Your task to perform on an android device: toggle notification dots Image 0: 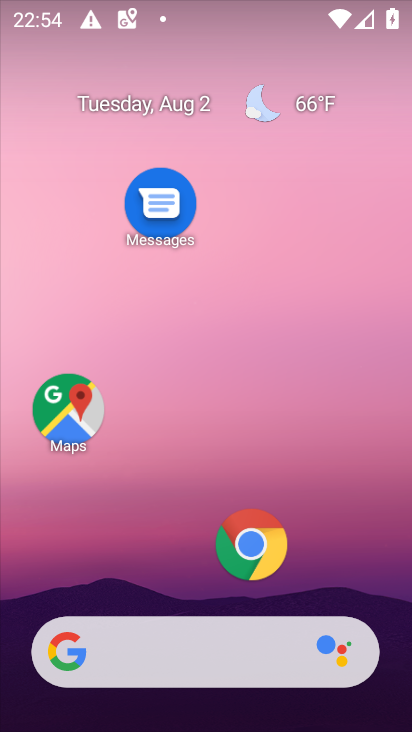
Step 0: drag from (192, 582) to (196, 251)
Your task to perform on an android device: toggle notification dots Image 1: 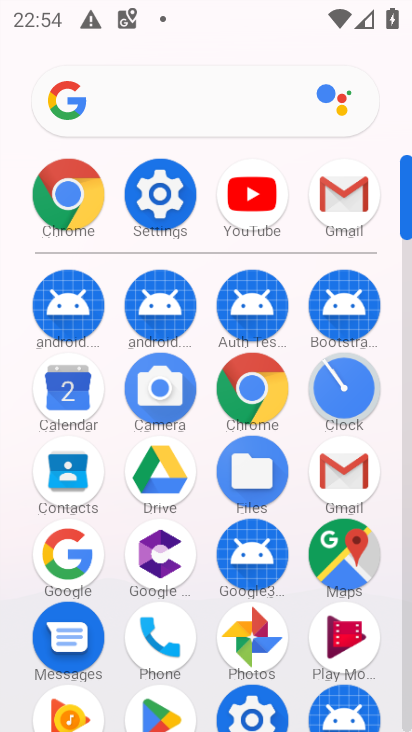
Step 1: click (163, 215)
Your task to perform on an android device: toggle notification dots Image 2: 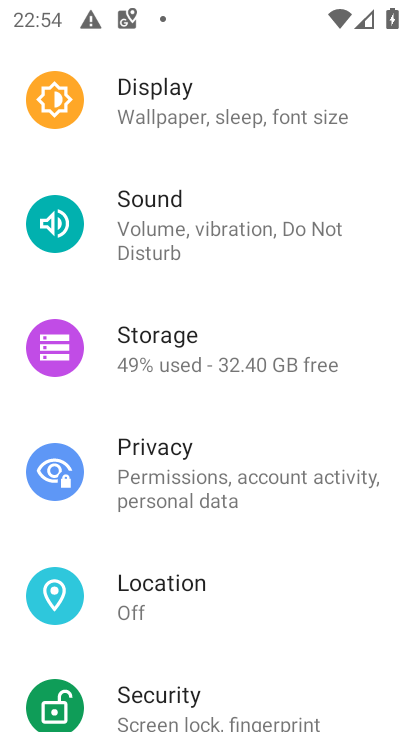
Step 2: drag from (163, 215) to (224, 540)
Your task to perform on an android device: toggle notification dots Image 3: 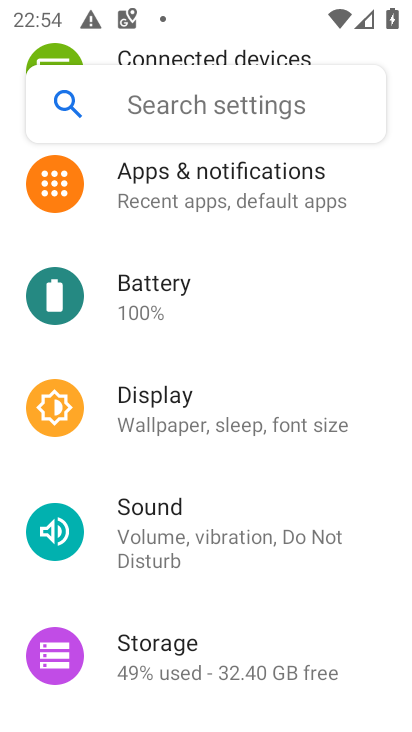
Step 3: click (231, 217)
Your task to perform on an android device: toggle notification dots Image 4: 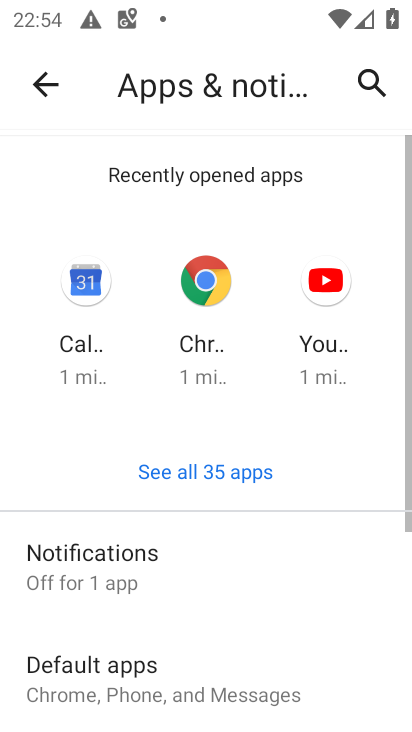
Step 4: click (168, 560)
Your task to perform on an android device: toggle notification dots Image 5: 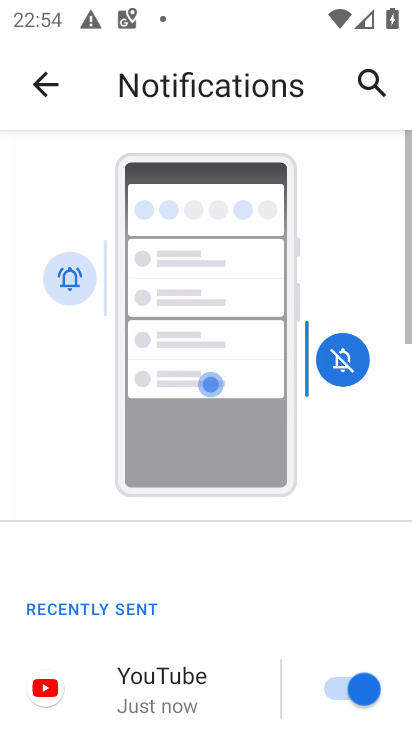
Step 5: drag from (218, 664) to (206, 207)
Your task to perform on an android device: toggle notification dots Image 6: 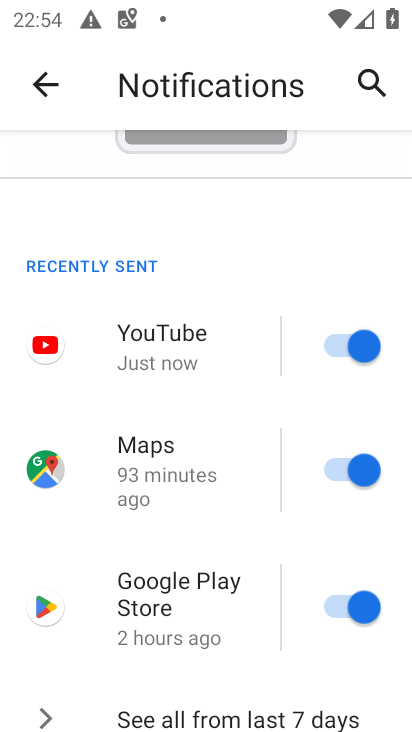
Step 6: drag from (245, 591) to (249, 261)
Your task to perform on an android device: toggle notification dots Image 7: 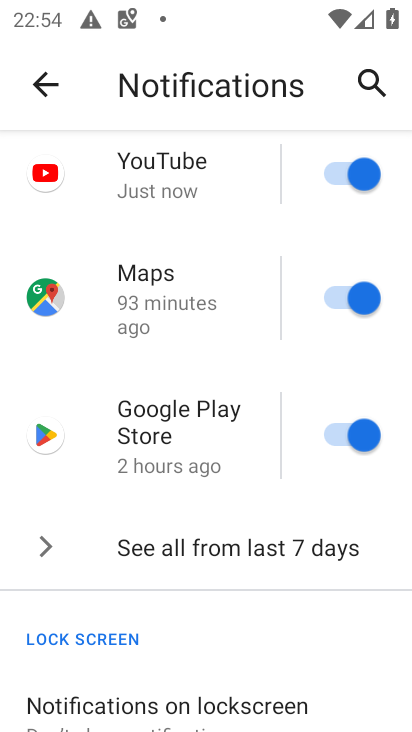
Step 7: drag from (276, 623) to (229, 161)
Your task to perform on an android device: toggle notification dots Image 8: 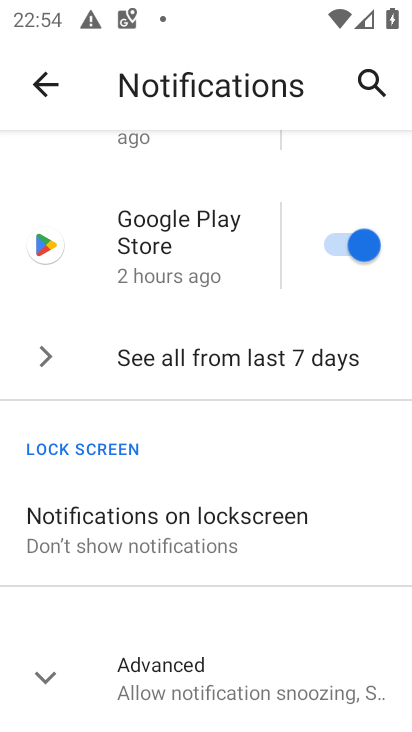
Step 8: click (213, 664)
Your task to perform on an android device: toggle notification dots Image 9: 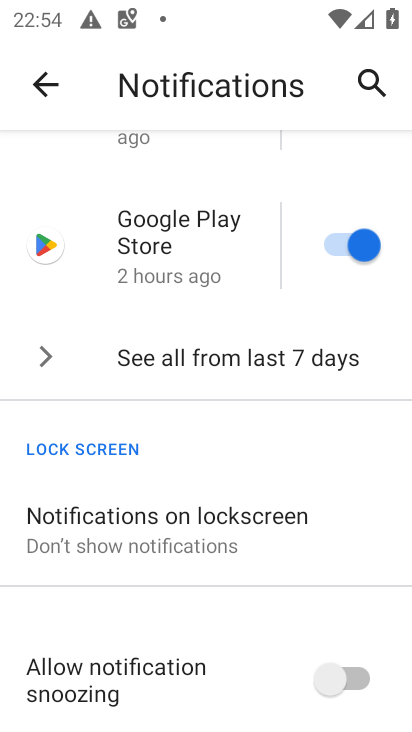
Step 9: drag from (240, 629) to (241, 210)
Your task to perform on an android device: toggle notification dots Image 10: 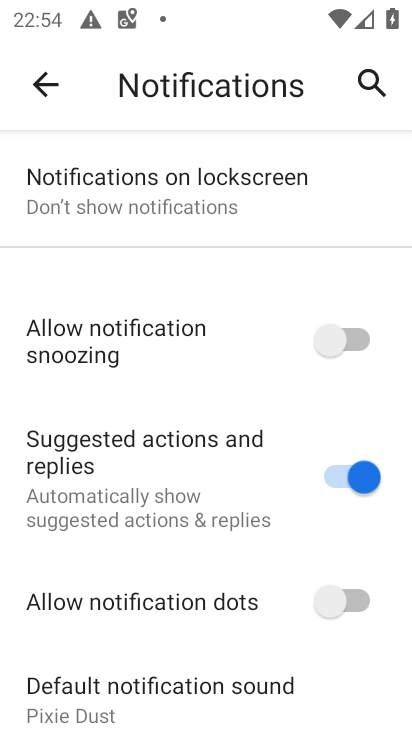
Step 10: drag from (231, 586) to (245, 249)
Your task to perform on an android device: toggle notification dots Image 11: 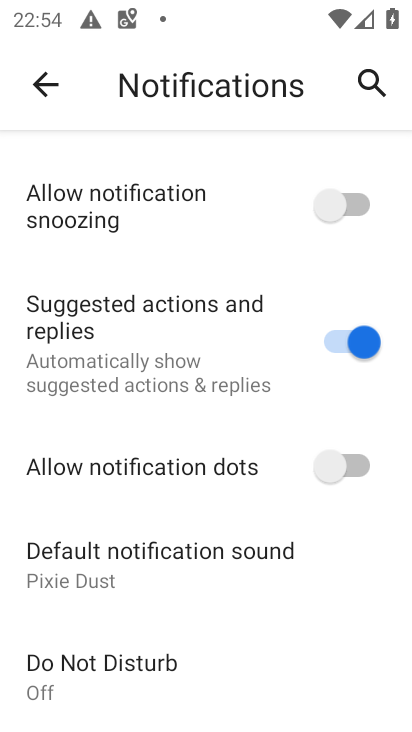
Step 11: click (351, 462)
Your task to perform on an android device: toggle notification dots Image 12: 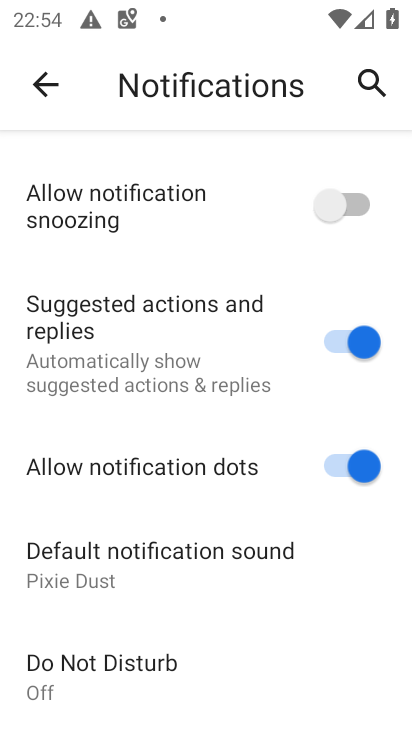
Step 12: task complete